Your task to perform on an android device: Go to Yahoo.com Image 0: 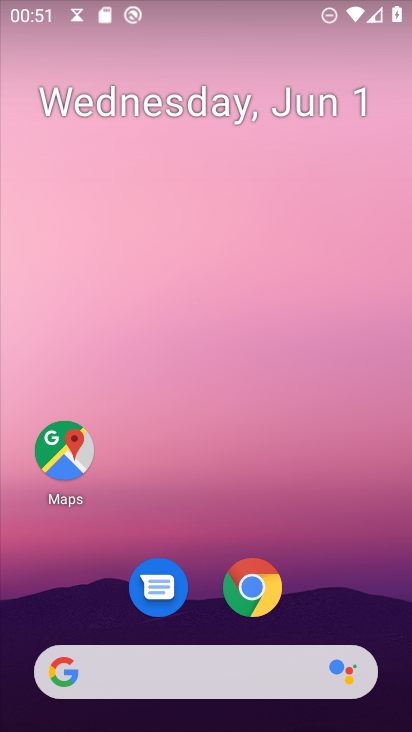
Step 0: click (254, 594)
Your task to perform on an android device: Go to Yahoo.com Image 1: 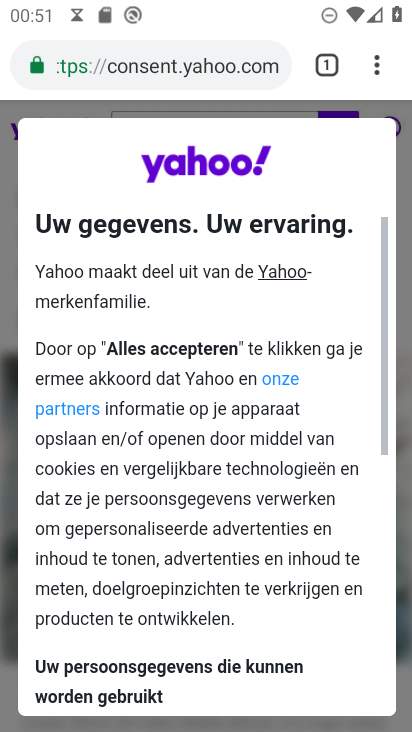
Step 1: task complete